Your task to perform on an android device: Do I have any events today? Image 0: 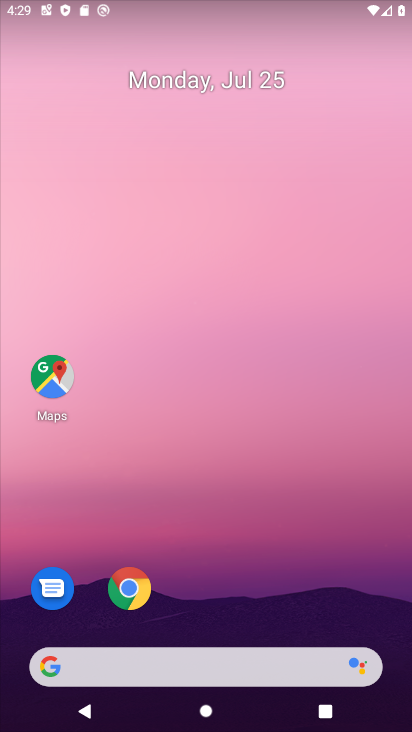
Step 0: drag from (180, 521) to (187, 169)
Your task to perform on an android device: Do I have any events today? Image 1: 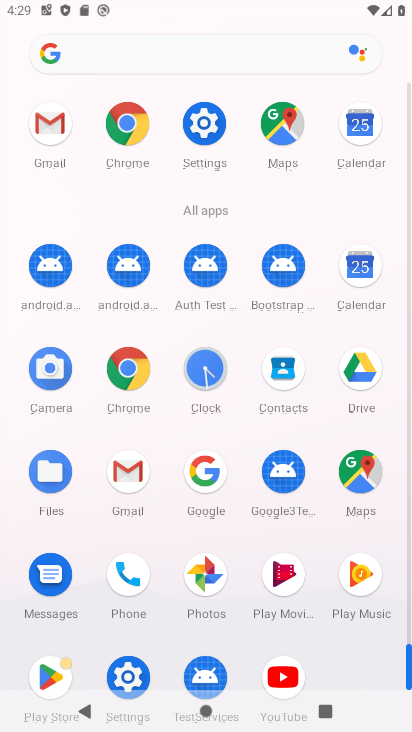
Step 1: drag from (187, 548) to (187, 218)
Your task to perform on an android device: Do I have any events today? Image 2: 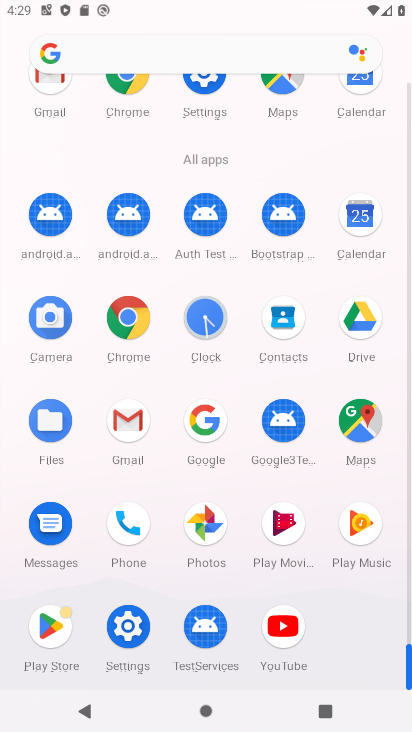
Step 2: click (336, 222)
Your task to perform on an android device: Do I have any events today? Image 3: 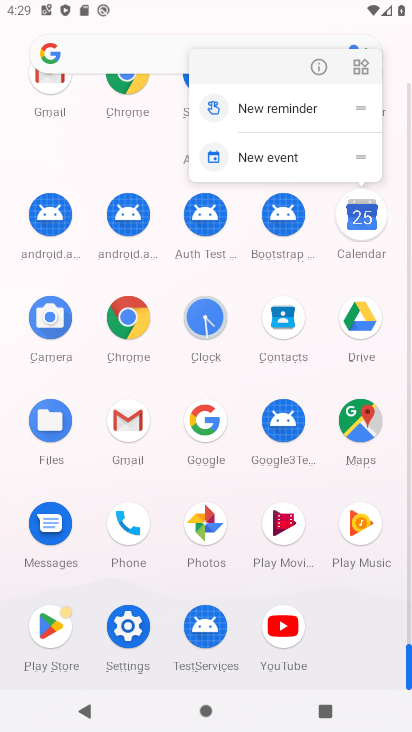
Step 3: click (345, 237)
Your task to perform on an android device: Do I have any events today? Image 4: 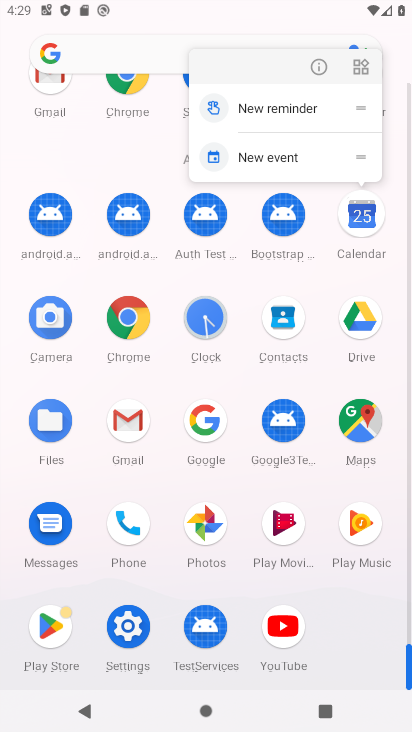
Step 4: click (351, 213)
Your task to perform on an android device: Do I have any events today? Image 5: 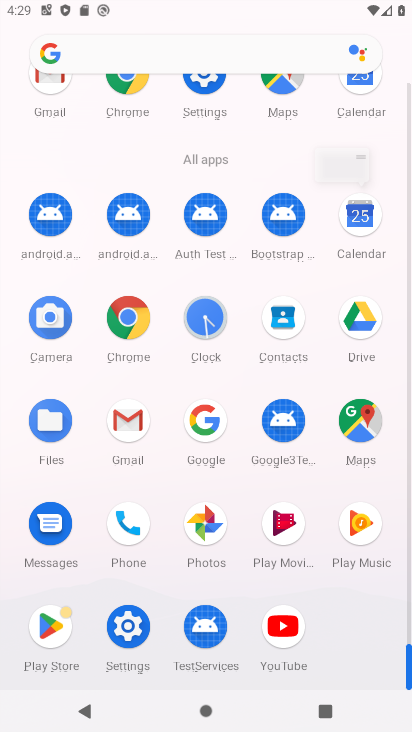
Step 5: click (356, 216)
Your task to perform on an android device: Do I have any events today? Image 6: 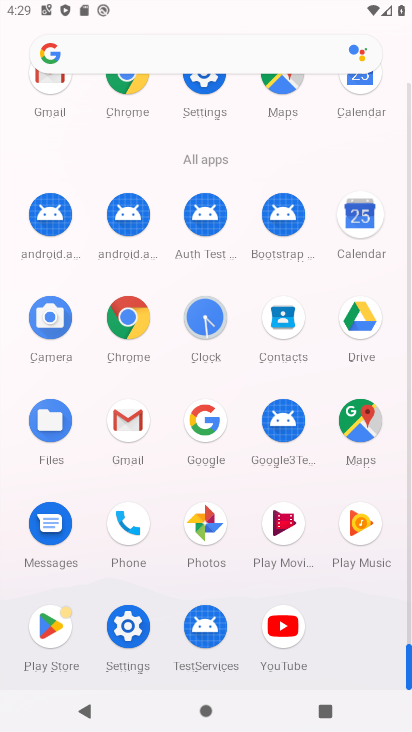
Step 6: click (372, 220)
Your task to perform on an android device: Do I have any events today? Image 7: 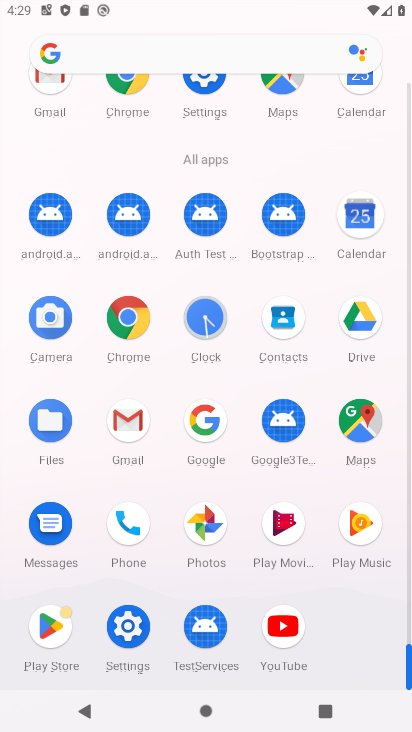
Step 7: click (375, 224)
Your task to perform on an android device: Do I have any events today? Image 8: 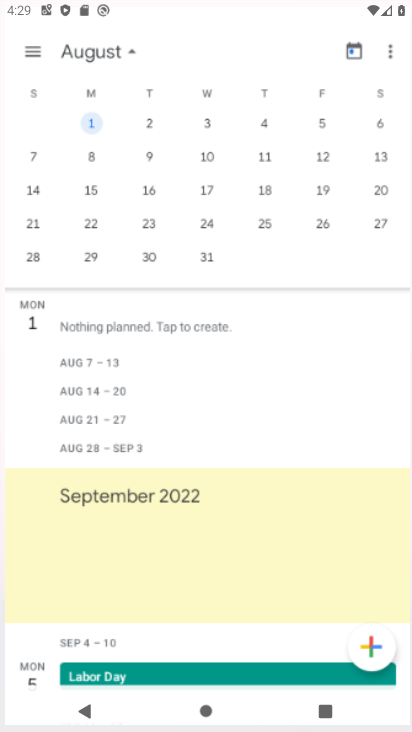
Step 8: click (387, 199)
Your task to perform on an android device: Do I have any events today? Image 9: 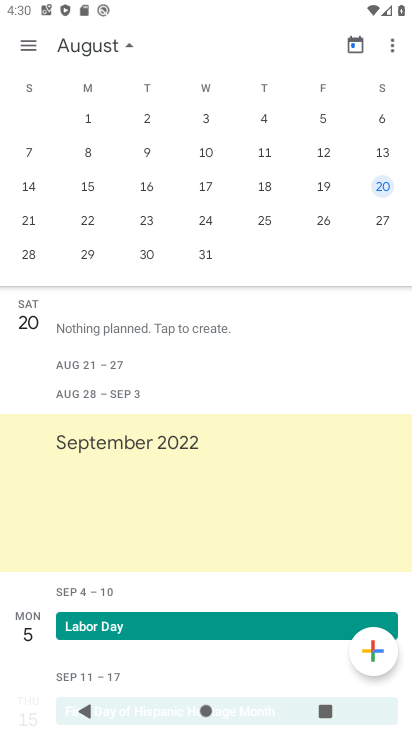
Step 9: drag from (64, 206) to (407, 212)
Your task to perform on an android device: Do I have any events today? Image 10: 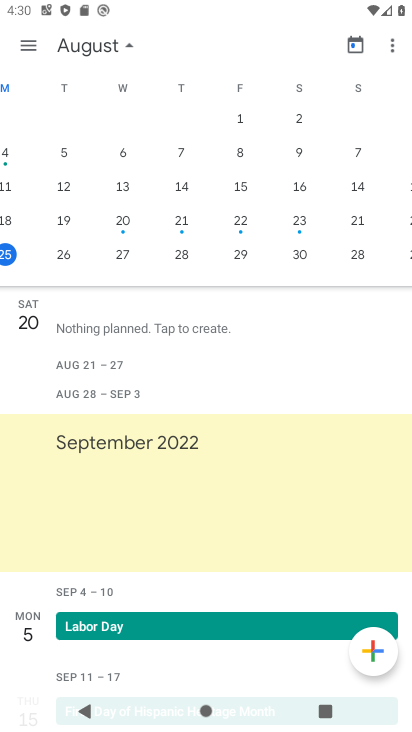
Step 10: drag from (116, 167) to (393, 282)
Your task to perform on an android device: Do I have any events today? Image 11: 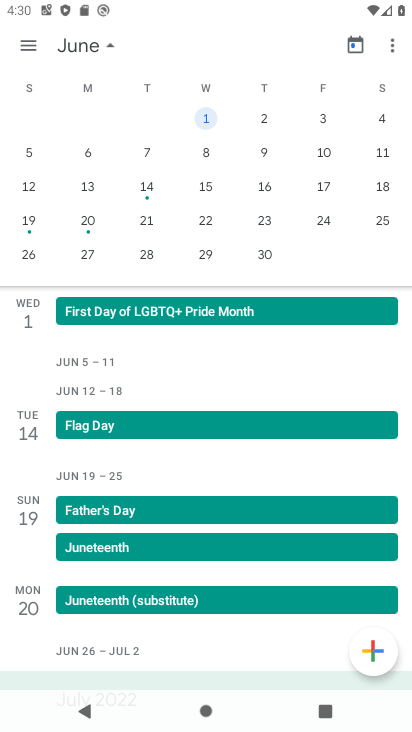
Step 11: drag from (280, 196) to (25, 286)
Your task to perform on an android device: Do I have any events today? Image 12: 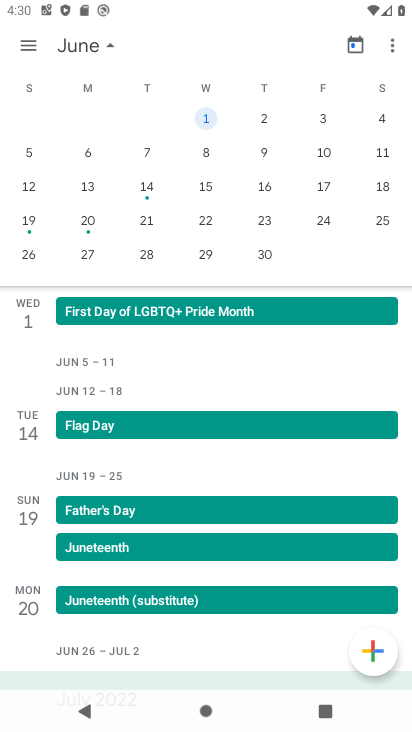
Step 12: click (107, 190)
Your task to perform on an android device: Do I have any events today? Image 13: 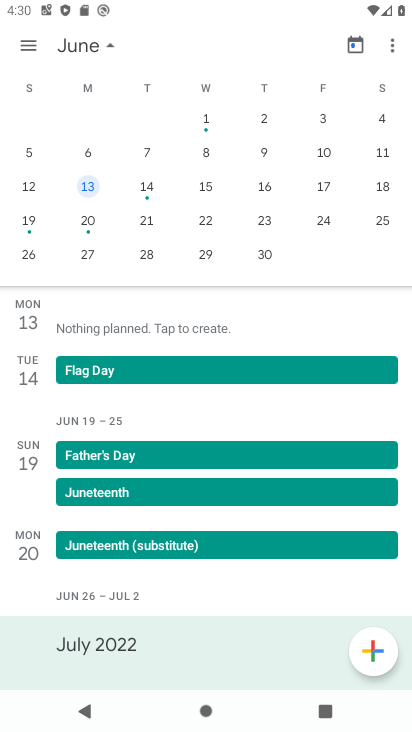
Step 13: drag from (318, 194) to (51, 206)
Your task to perform on an android device: Do I have any events today? Image 14: 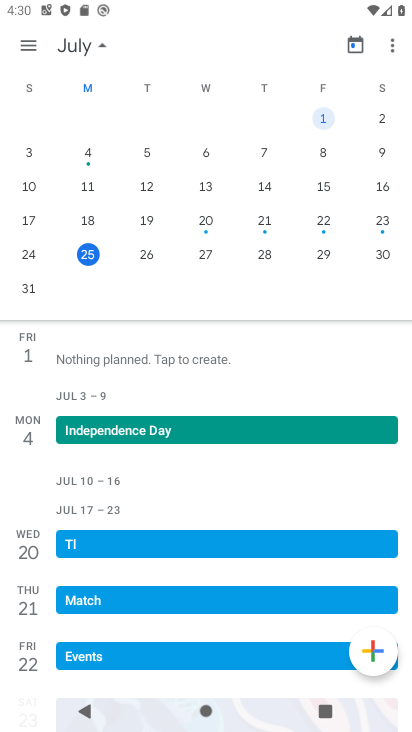
Step 14: click (79, 249)
Your task to perform on an android device: Do I have any events today? Image 15: 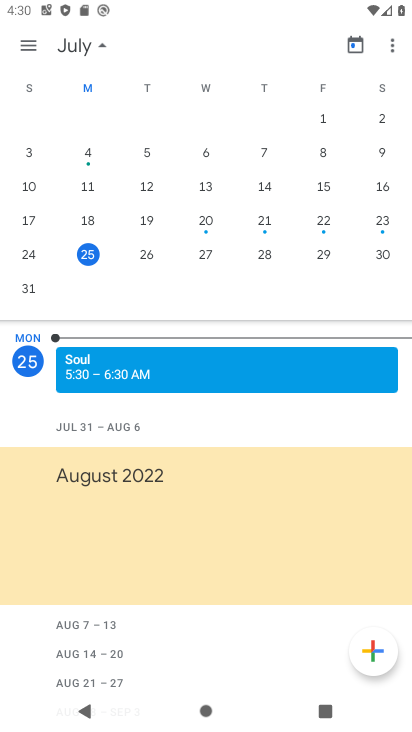
Step 15: click (82, 249)
Your task to perform on an android device: Do I have any events today? Image 16: 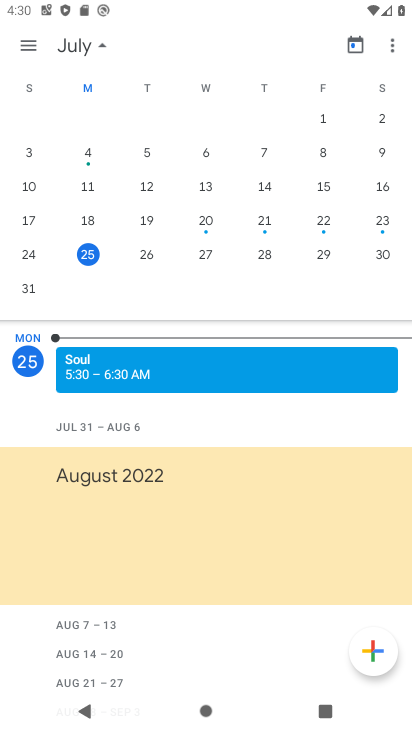
Step 16: click (83, 249)
Your task to perform on an android device: Do I have any events today? Image 17: 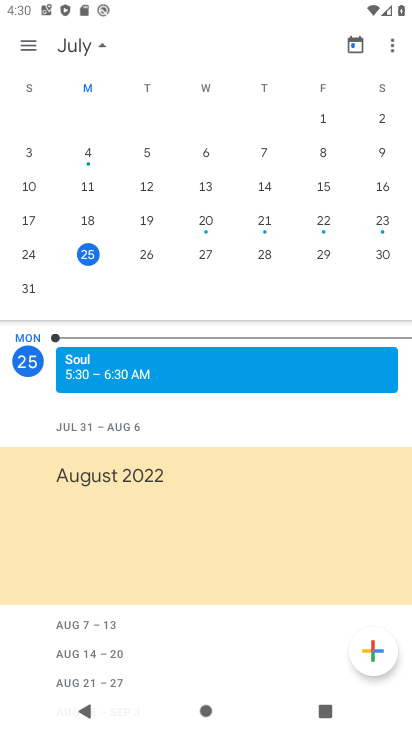
Step 17: task complete